Your task to perform on an android device: set an alarm Image 0: 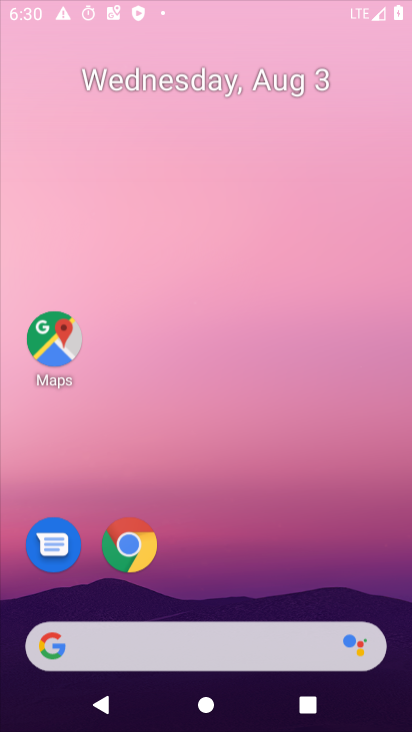
Step 0: press home button
Your task to perform on an android device: set an alarm Image 1: 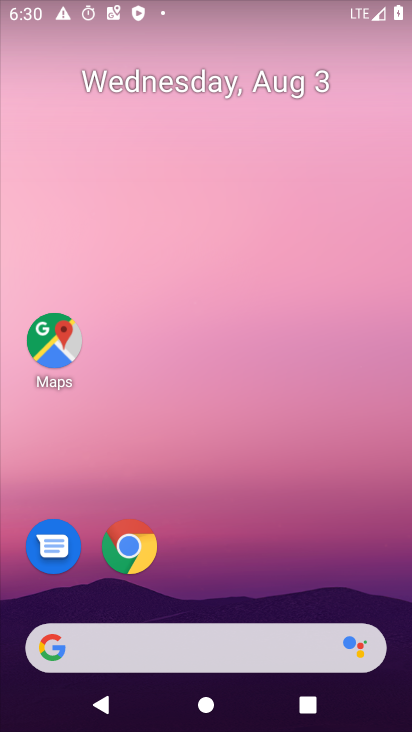
Step 1: drag from (238, 615) to (278, 89)
Your task to perform on an android device: set an alarm Image 2: 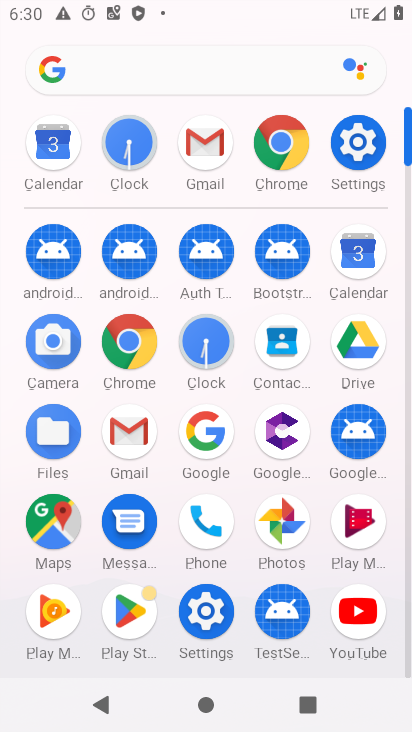
Step 2: click (143, 134)
Your task to perform on an android device: set an alarm Image 3: 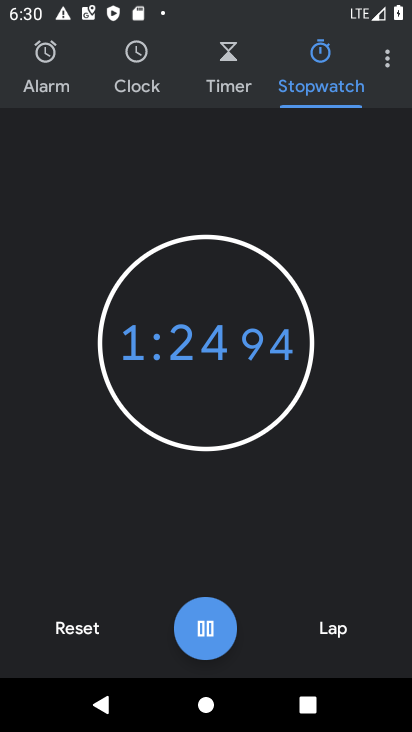
Step 3: click (48, 52)
Your task to perform on an android device: set an alarm Image 4: 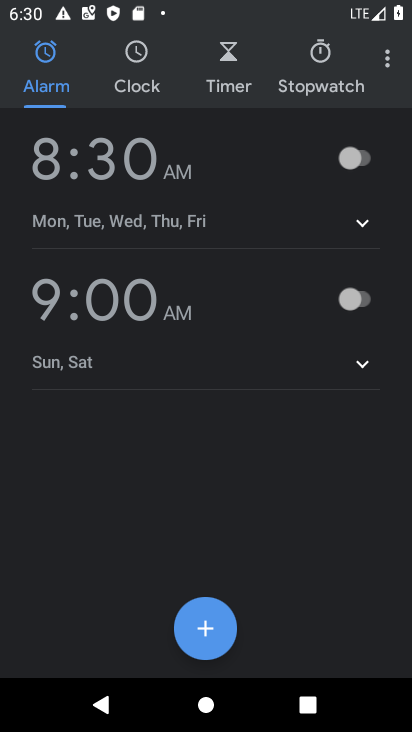
Step 4: click (345, 157)
Your task to perform on an android device: set an alarm Image 5: 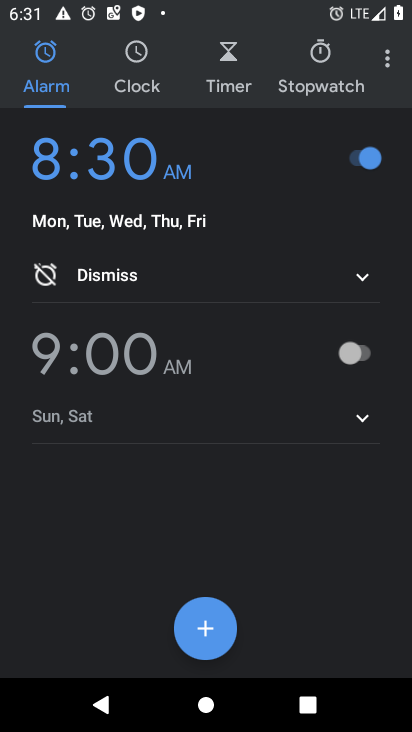
Step 5: task complete